Your task to perform on an android device: allow cookies in the chrome app Image 0: 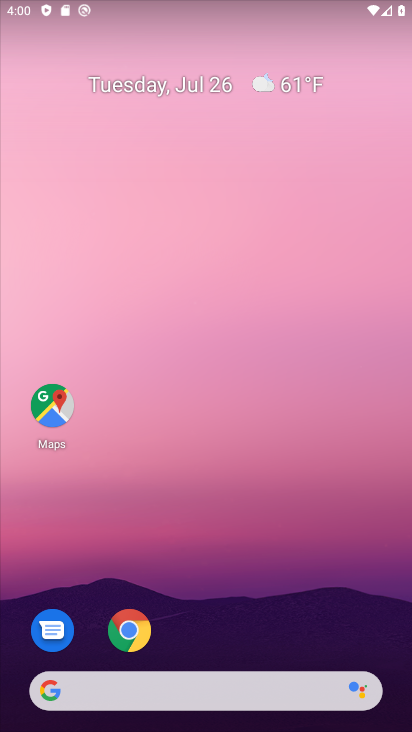
Step 0: click (207, 318)
Your task to perform on an android device: allow cookies in the chrome app Image 1: 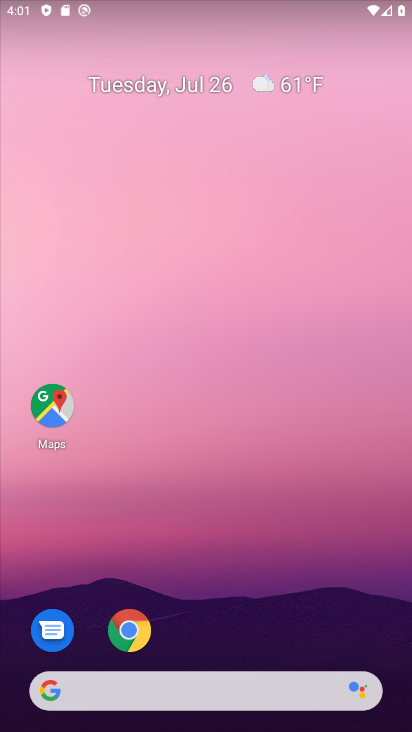
Step 1: drag from (195, 631) to (128, 90)
Your task to perform on an android device: allow cookies in the chrome app Image 2: 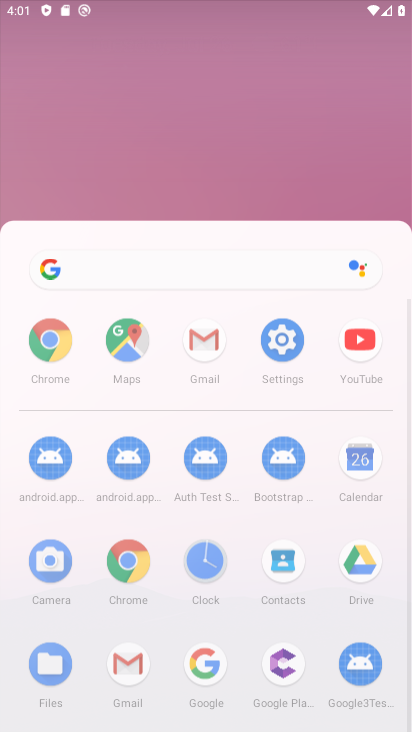
Step 2: drag from (197, 565) to (134, 120)
Your task to perform on an android device: allow cookies in the chrome app Image 3: 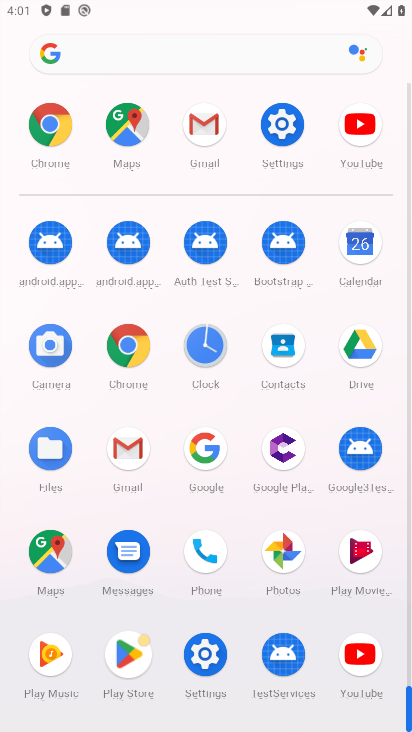
Step 3: drag from (197, 534) to (190, 52)
Your task to perform on an android device: allow cookies in the chrome app Image 4: 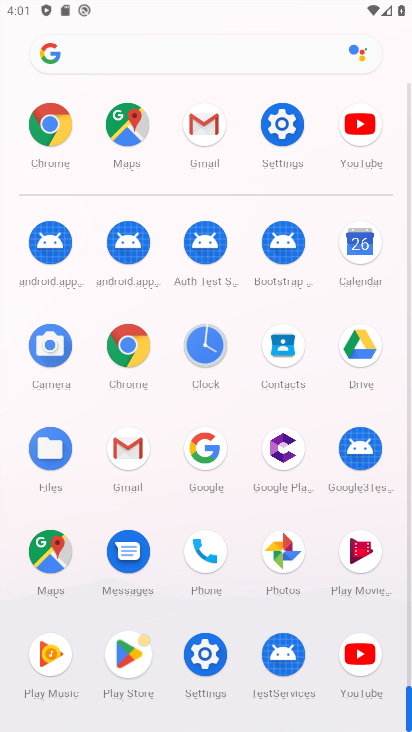
Step 4: click (37, 121)
Your task to perform on an android device: allow cookies in the chrome app Image 5: 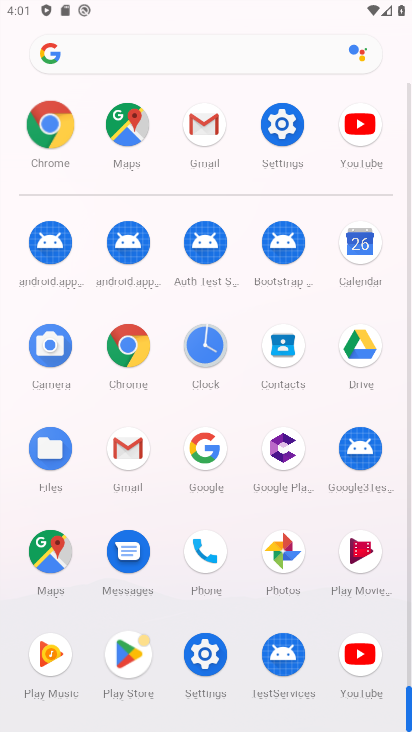
Step 5: click (41, 122)
Your task to perform on an android device: allow cookies in the chrome app Image 6: 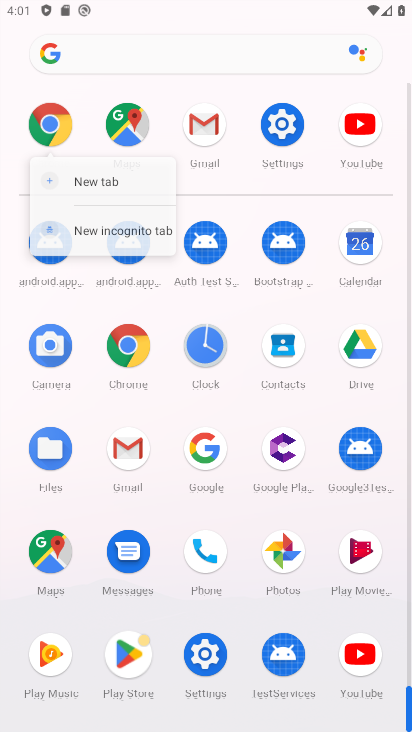
Step 6: click (46, 127)
Your task to perform on an android device: allow cookies in the chrome app Image 7: 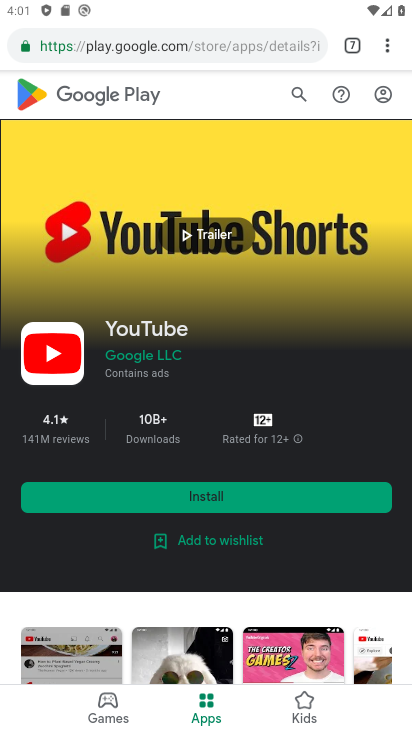
Step 7: click (386, 37)
Your task to perform on an android device: allow cookies in the chrome app Image 8: 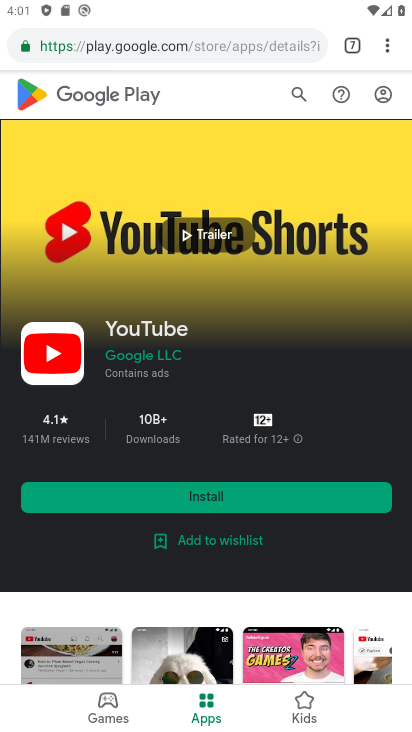
Step 8: click (385, 42)
Your task to perform on an android device: allow cookies in the chrome app Image 9: 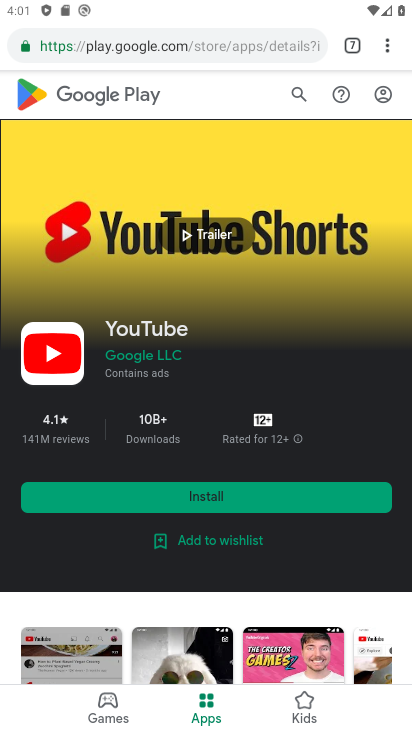
Step 9: click (385, 42)
Your task to perform on an android device: allow cookies in the chrome app Image 10: 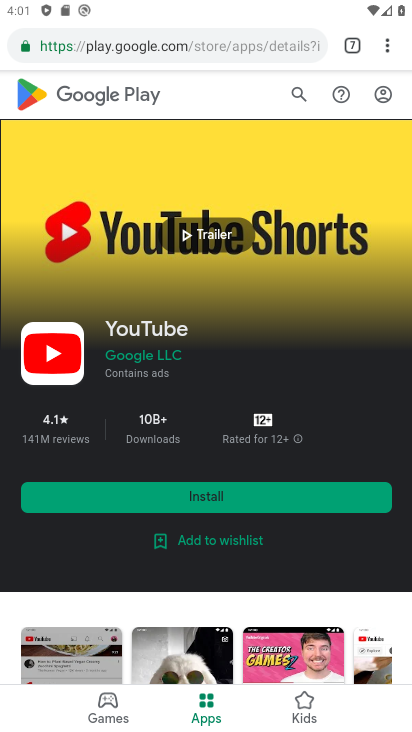
Step 10: click (377, 40)
Your task to perform on an android device: allow cookies in the chrome app Image 11: 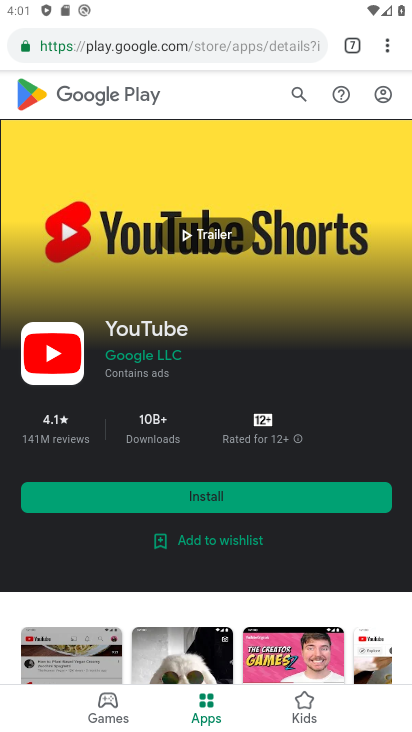
Step 11: drag from (389, 48) to (214, 500)
Your task to perform on an android device: allow cookies in the chrome app Image 12: 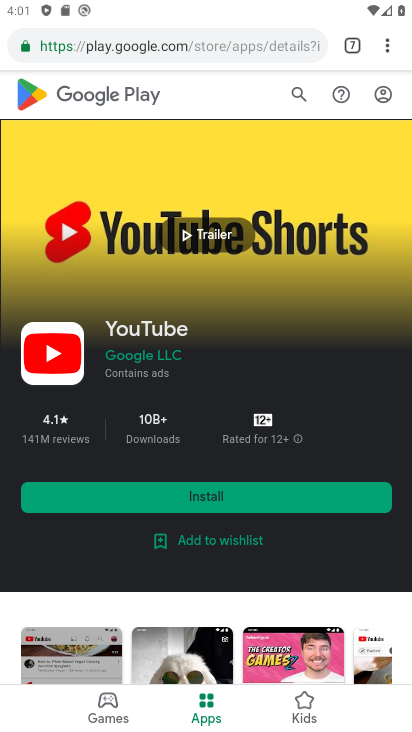
Step 12: click (218, 496)
Your task to perform on an android device: allow cookies in the chrome app Image 13: 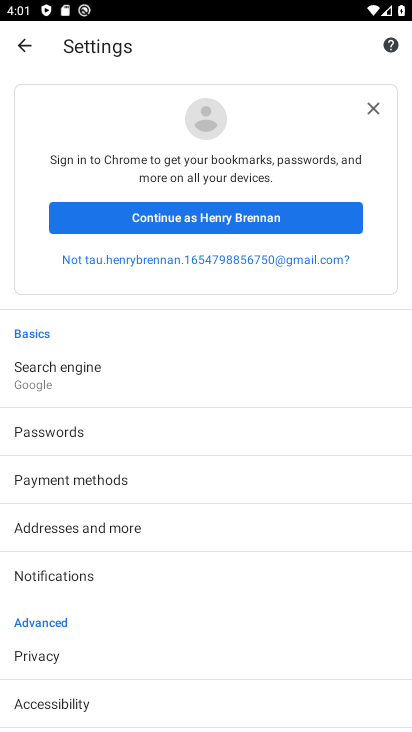
Step 13: drag from (67, 581) to (35, 277)
Your task to perform on an android device: allow cookies in the chrome app Image 14: 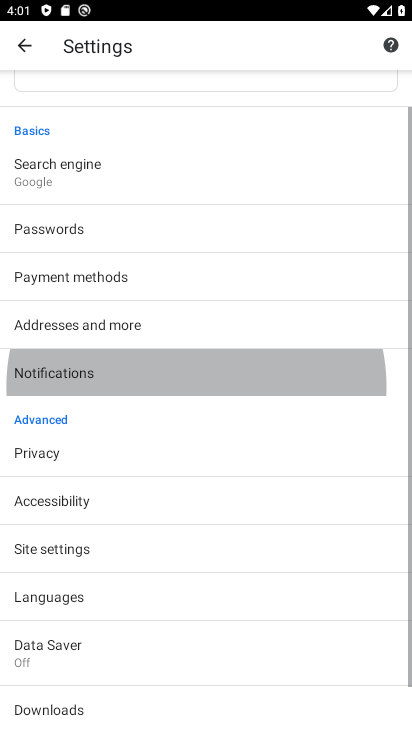
Step 14: drag from (43, 484) to (31, 206)
Your task to perform on an android device: allow cookies in the chrome app Image 15: 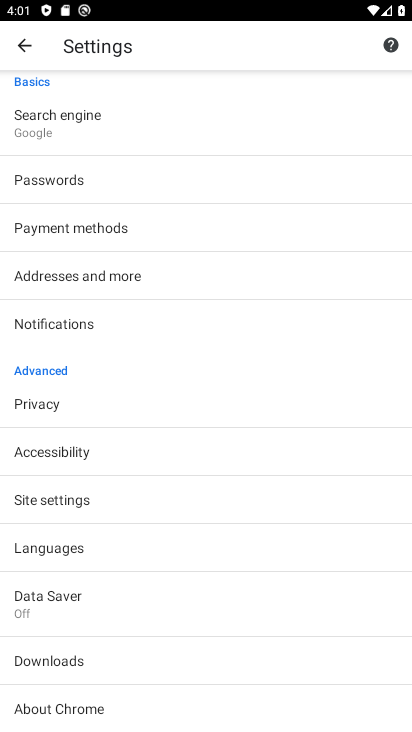
Step 15: click (44, 499)
Your task to perform on an android device: allow cookies in the chrome app Image 16: 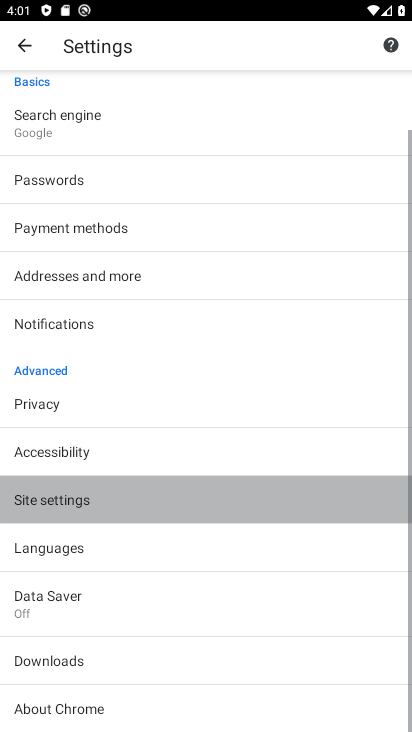
Step 16: click (44, 498)
Your task to perform on an android device: allow cookies in the chrome app Image 17: 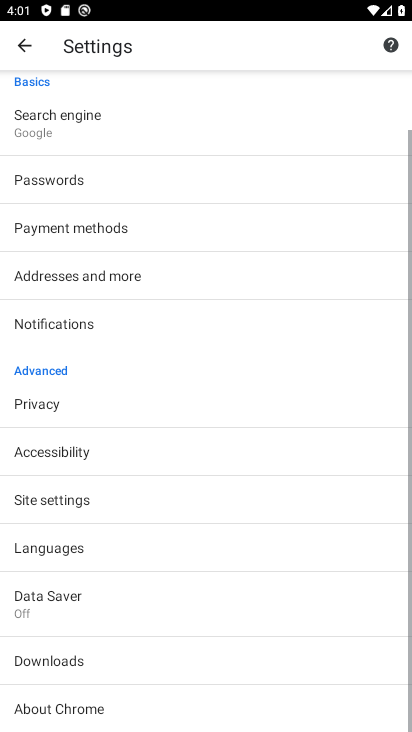
Step 17: click (44, 497)
Your task to perform on an android device: allow cookies in the chrome app Image 18: 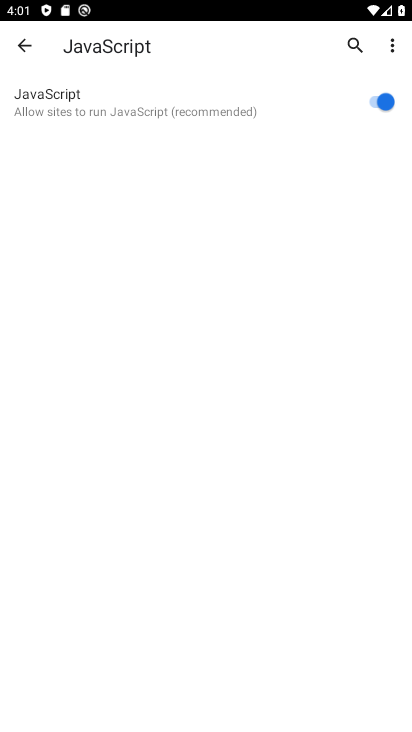
Step 18: click (23, 41)
Your task to perform on an android device: allow cookies in the chrome app Image 19: 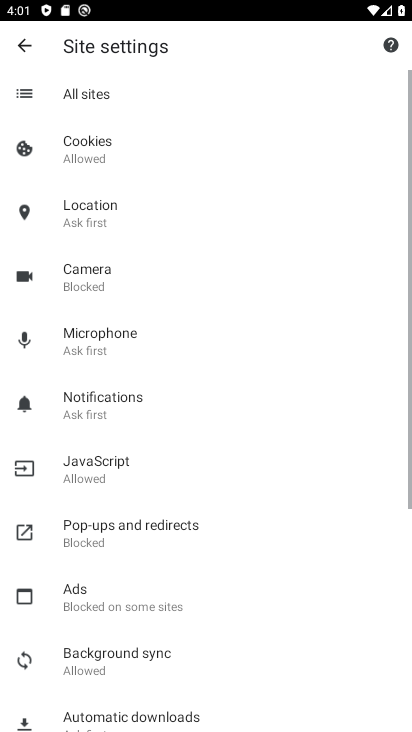
Step 19: click (78, 148)
Your task to perform on an android device: allow cookies in the chrome app Image 20: 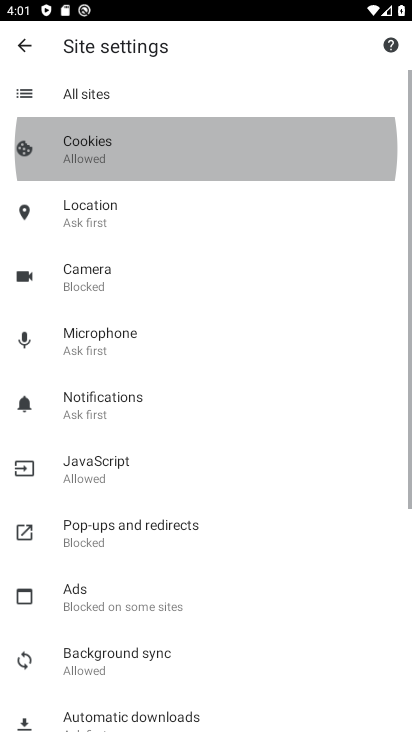
Step 20: click (79, 159)
Your task to perform on an android device: allow cookies in the chrome app Image 21: 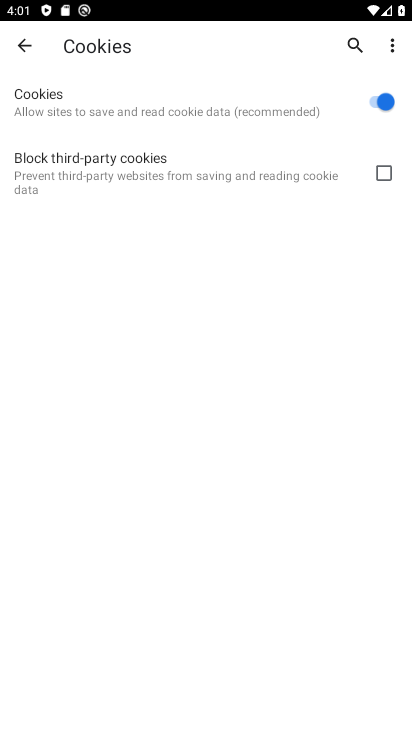
Step 21: task complete